Your task to perform on an android device: Search for sushi restaurants on Maps Image 0: 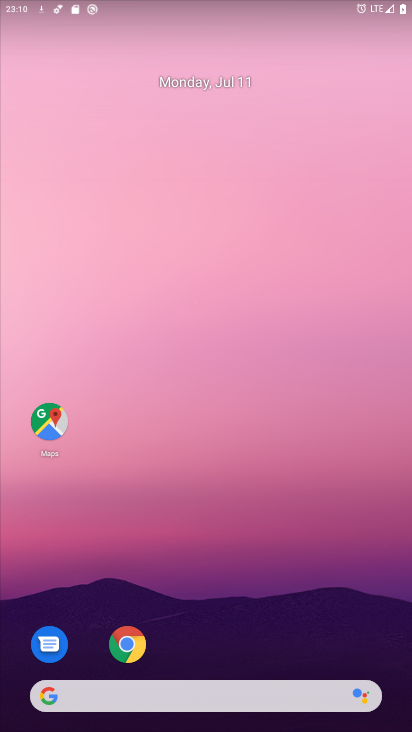
Step 0: click (36, 423)
Your task to perform on an android device: Search for sushi restaurants on Maps Image 1: 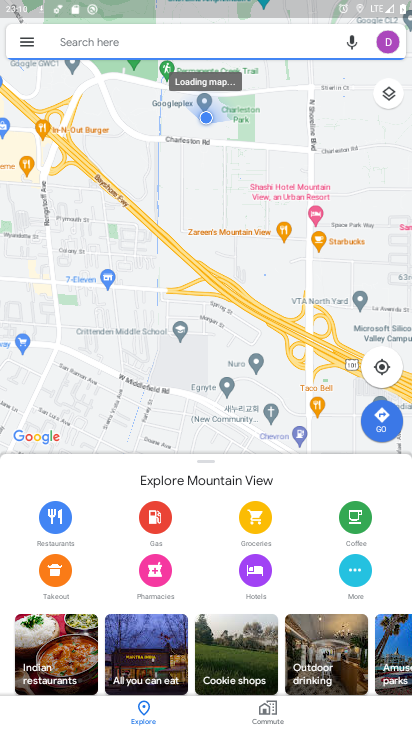
Step 1: click (181, 24)
Your task to perform on an android device: Search for sushi restaurants on Maps Image 2: 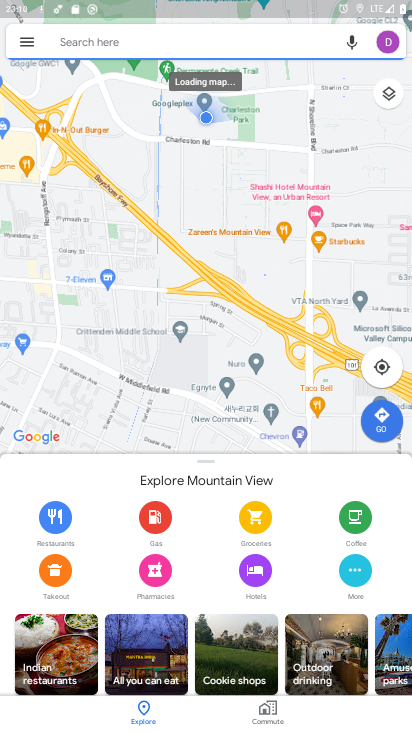
Step 2: click (176, 39)
Your task to perform on an android device: Search for sushi restaurants on Maps Image 3: 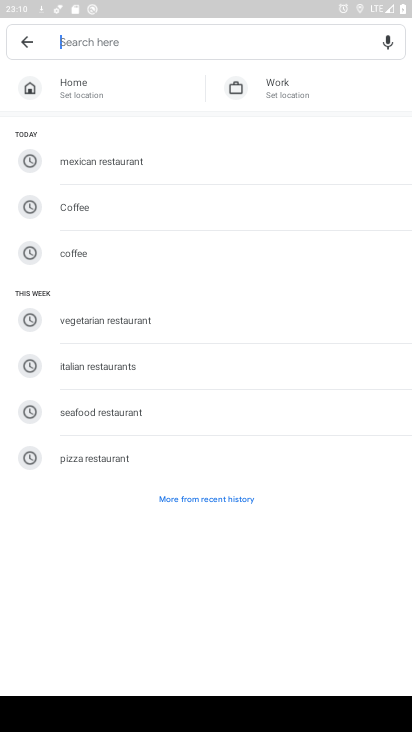
Step 3: type " sushi restaurant"
Your task to perform on an android device: Search for sushi restaurants on Maps Image 4: 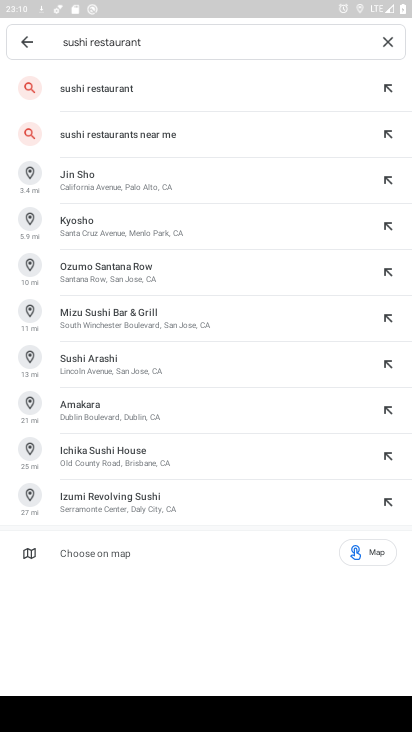
Step 4: click (97, 86)
Your task to perform on an android device: Search for sushi restaurants on Maps Image 5: 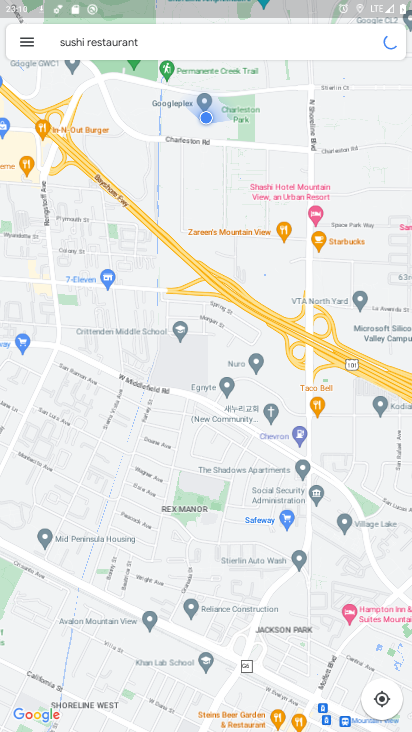
Step 5: task complete